Your task to perform on an android device: create a new album in the google photos Image 0: 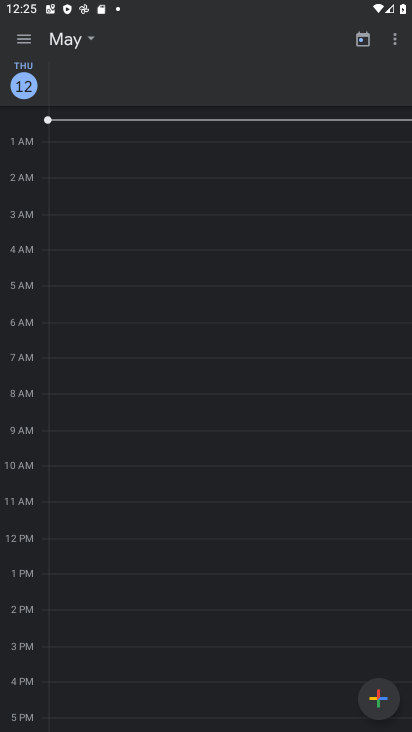
Step 0: press home button
Your task to perform on an android device: create a new album in the google photos Image 1: 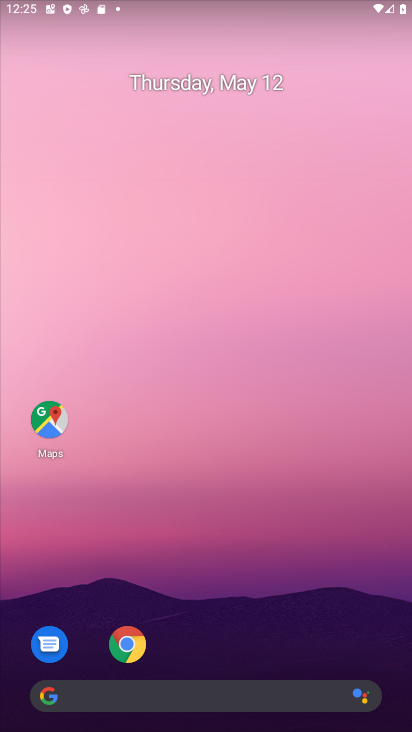
Step 1: drag from (303, 645) to (293, 142)
Your task to perform on an android device: create a new album in the google photos Image 2: 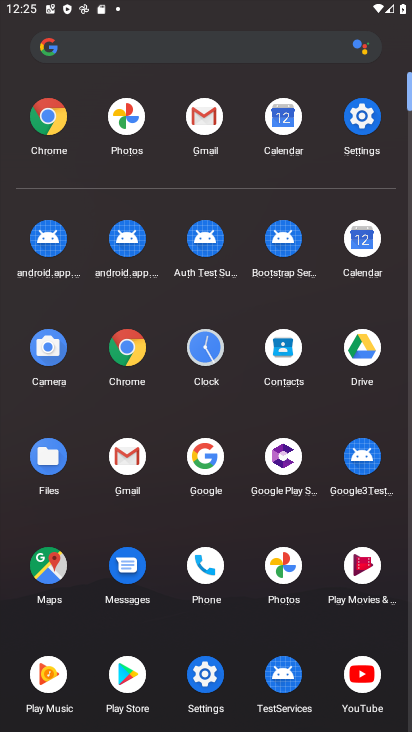
Step 2: click (293, 602)
Your task to perform on an android device: create a new album in the google photos Image 3: 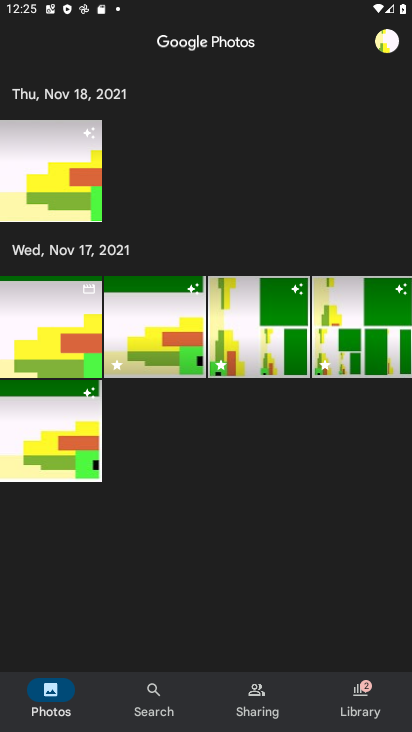
Step 3: click (344, 701)
Your task to perform on an android device: create a new album in the google photos Image 4: 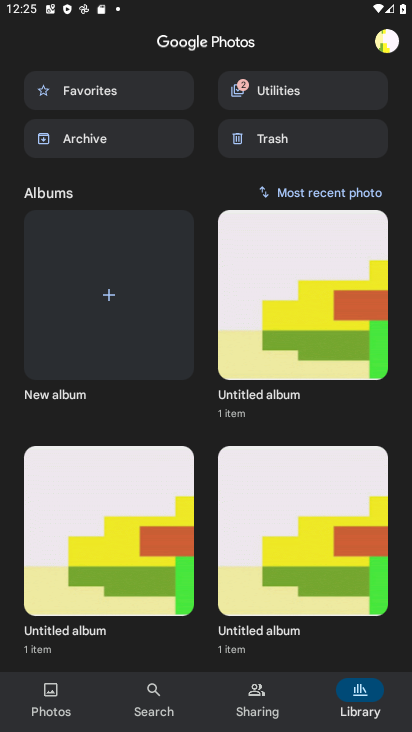
Step 4: click (47, 712)
Your task to perform on an android device: create a new album in the google photos Image 5: 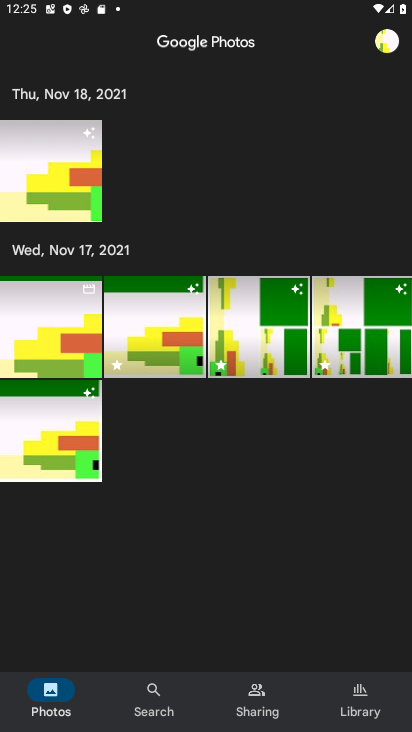
Step 5: click (392, 54)
Your task to perform on an android device: create a new album in the google photos Image 6: 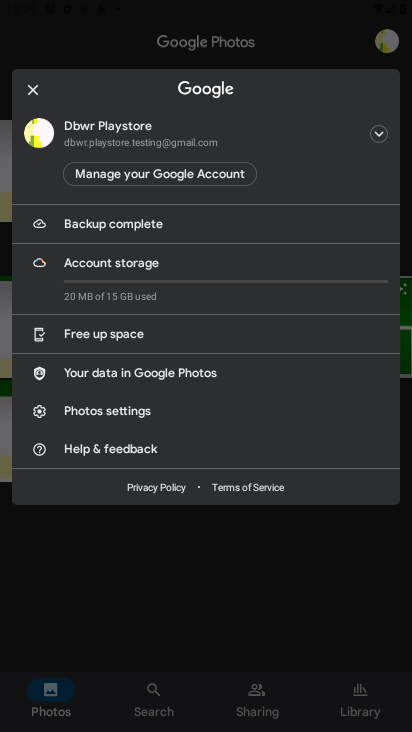
Step 6: click (162, 562)
Your task to perform on an android device: create a new album in the google photos Image 7: 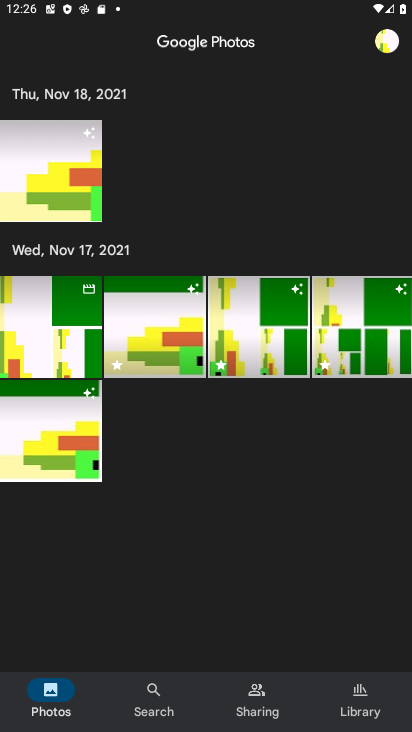
Step 7: click (366, 707)
Your task to perform on an android device: create a new album in the google photos Image 8: 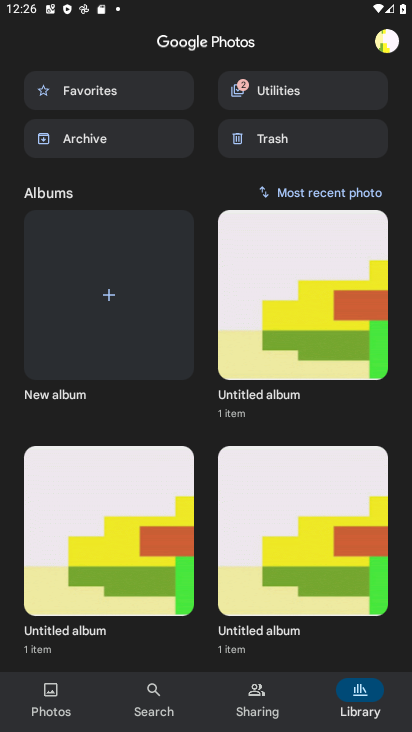
Step 8: click (134, 272)
Your task to perform on an android device: create a new album in the google photos Image 9: 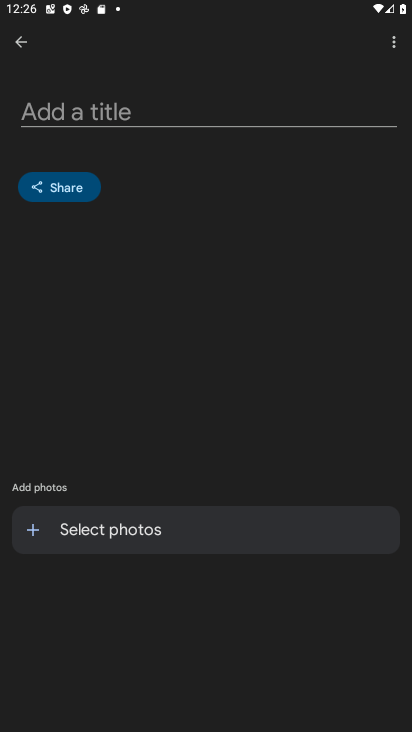
Step 9: click (157, 113)
Your task to perform on an android device: create a new album in the google photos Image 10: 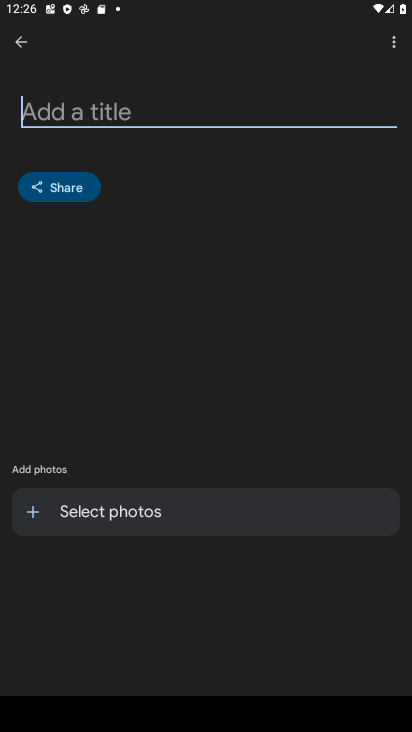
Step 10: type "awda"
Your task to perform on an android device: create a new album in the google photos Image 11: 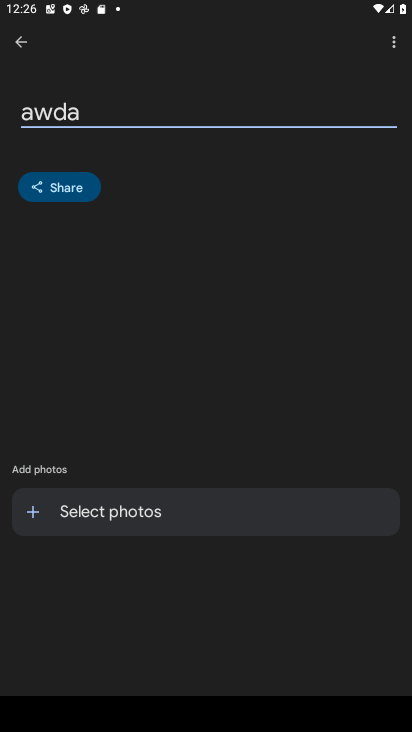
Step 11: click (128, 513)
Your task to perform on an android device: create a new album in the google photos Image 12: 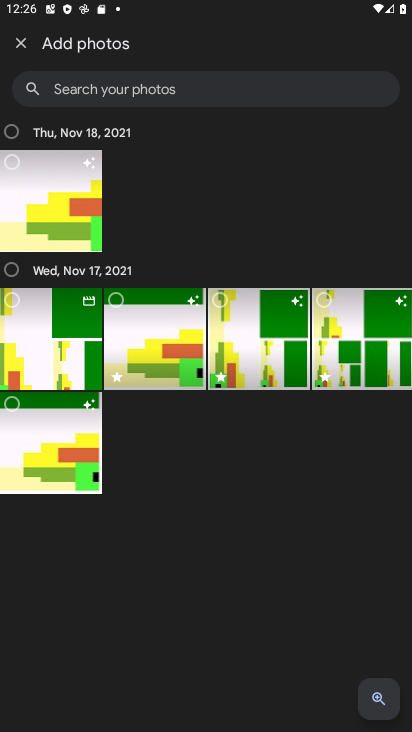
Step 12: click (14, 142)
Your task to perform on an android device: create a new album in the google photos Image 13: 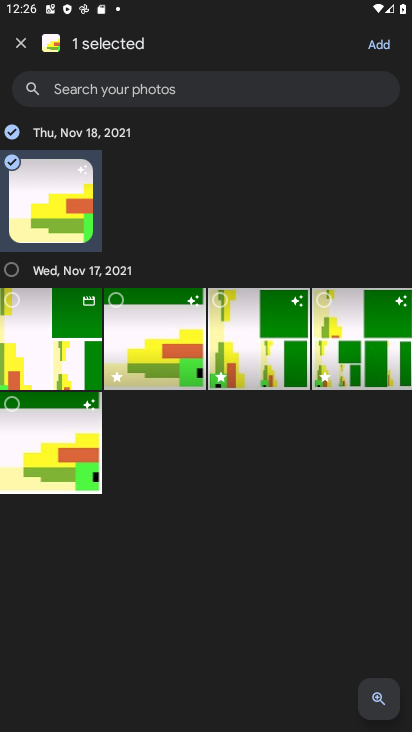
Step 13: click (14, 263)
Your task to perform on an android device: create a new album in the google photos Image 14: 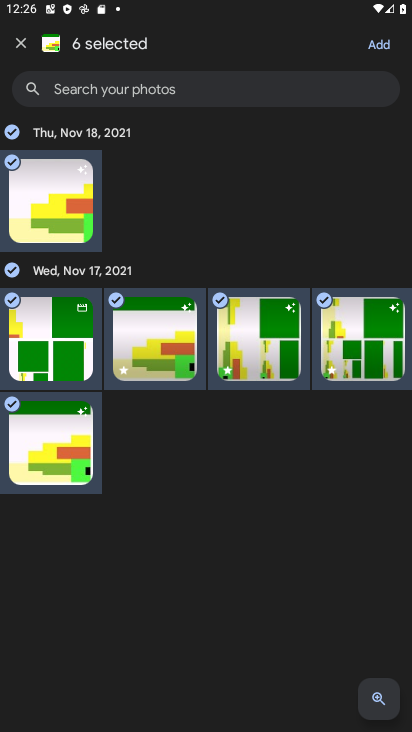
Step 14: click (376, 44)
Your task to perform on an android device: create a new album in the google photos Image 15: 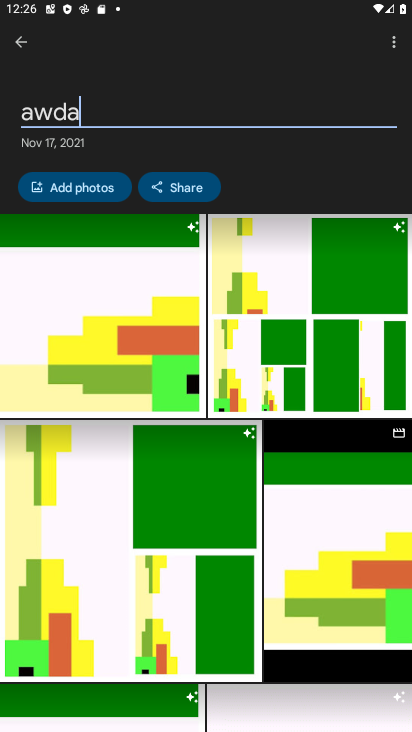
Step 15: click (392, 50)
Your task to perform on an android device: create a new album in the google photos Image 16: 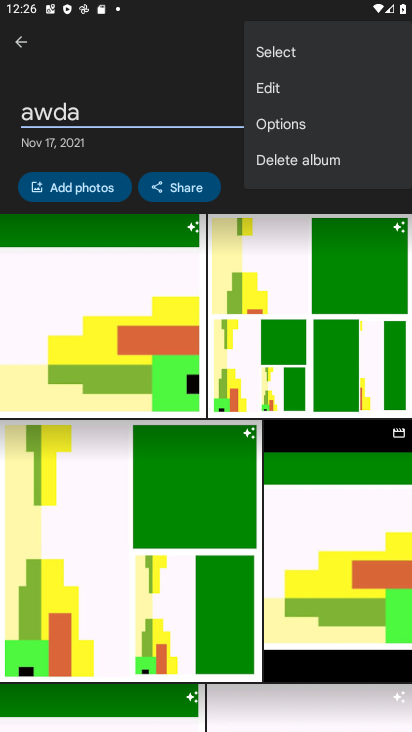
Step 16: click (174, 100)
Your task to perform on an android device: create a new album in the google photos Image 17: 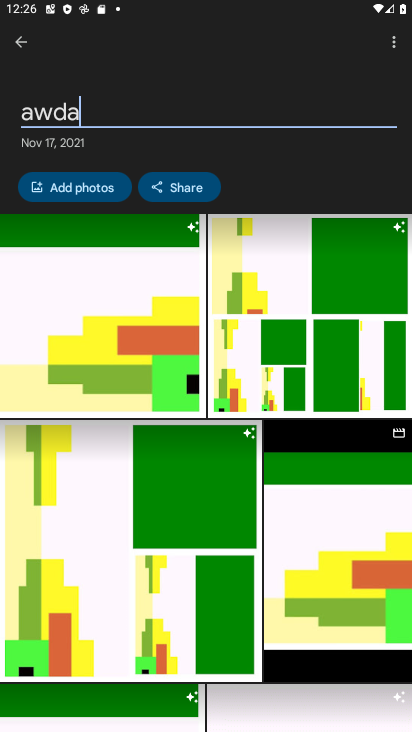
Step 17: task complete